Your task to perform on an android device: Turn off the flashlight Image 0: 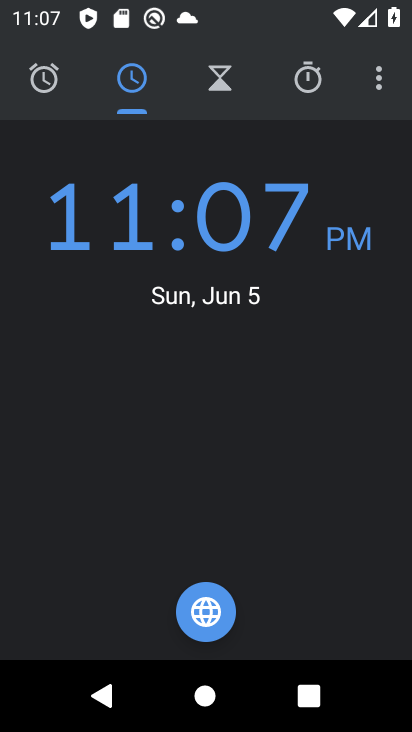
Step 0: press back button
Your task to perform on an android device: Turn off the flashlight Image 1: 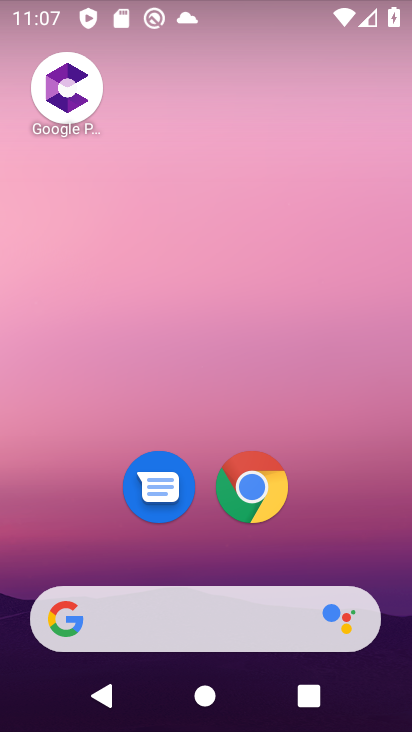
Step 1: drag from (345, 533) to (241, 106)
Your task to perform on an android device: Turn off the flashlight Image 2: 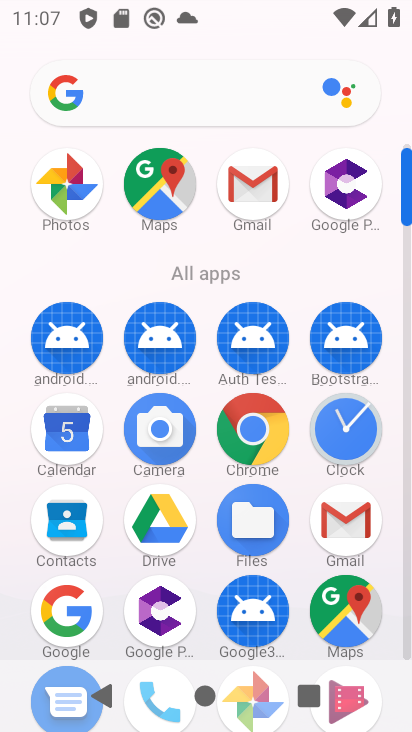
Step 2: drag from (312, 284) to (301, 42)
Your task to perform on an android device: Turn off the flashlight Image 3: 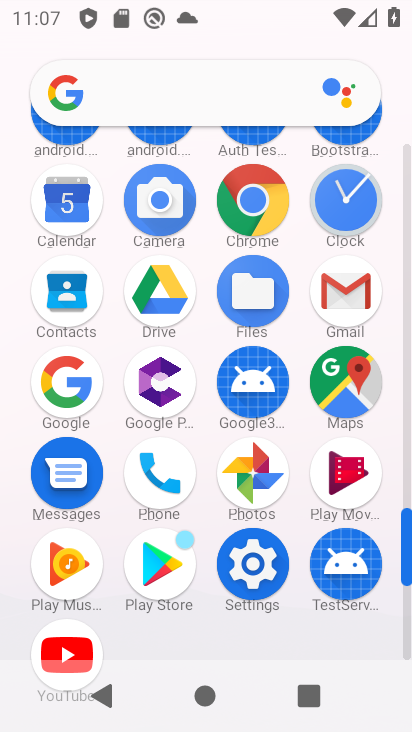
Step 3: click (255, 563)
Your task to perform on an android device: Turn off the flashlight Image 4: 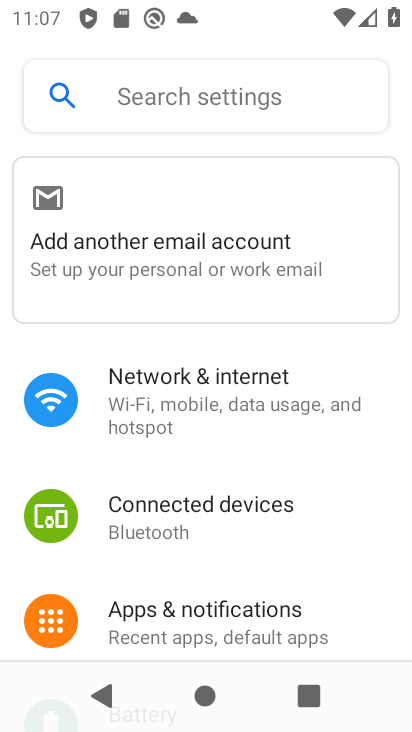
Step 4: drag from (203, 569) to (232, 386)
Your task to perform on an android device: Turn off the flashlight Image 5: 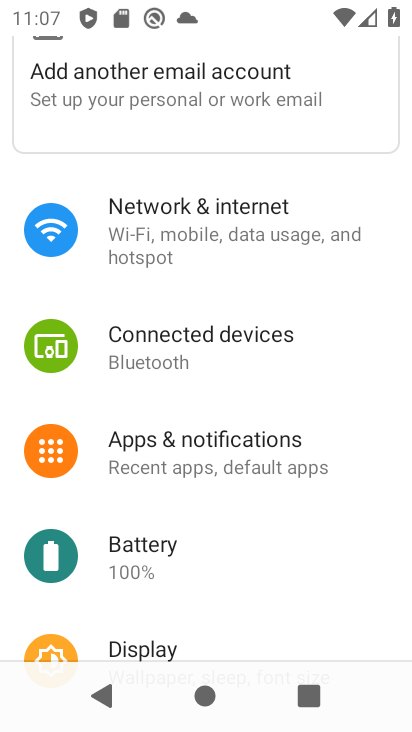
Step 5: drag from (161, 508) to (258, 355)
Your task to perform on an android device: Turn off the flashlight Image 6: 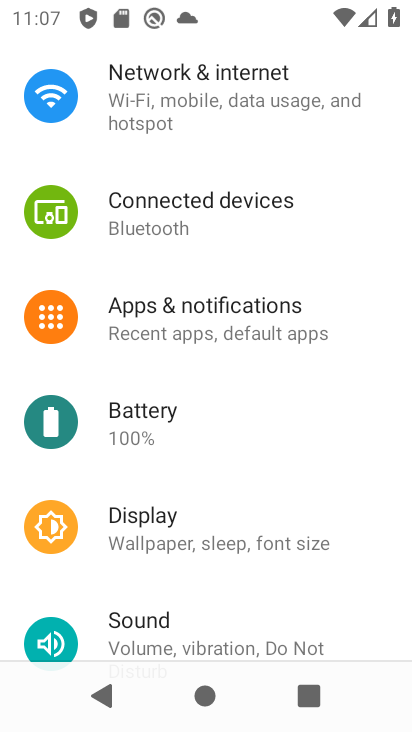
Step 6: drag from (141, 467) to (168, 337)
Your task to perform on an android device: Turn off the flashlight Image 7: 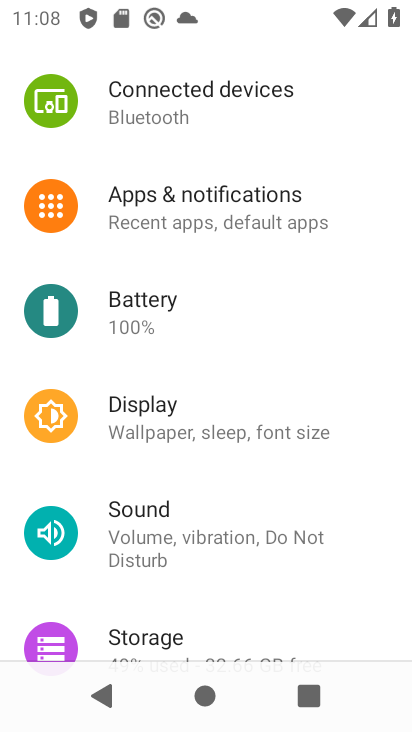
Step 7: drag from (177, 477) to (258, 351)
Your task to perform on an android device: Turn off the flashlight Image 8: 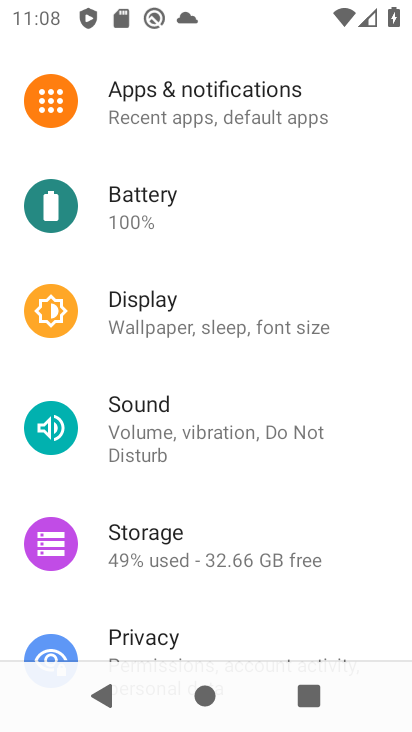
Step 8: drag from (228, 524) to (265, 393)
Your task to perform on an android device: Turn off the flashlight Image 9: 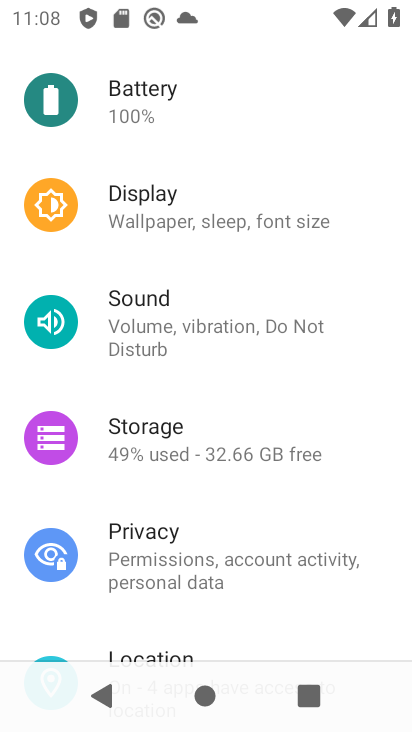
Step 9: drag from (236, 509) to (253, 411)
Your task to perform on an android device: Turn off the flashlight Image 10: 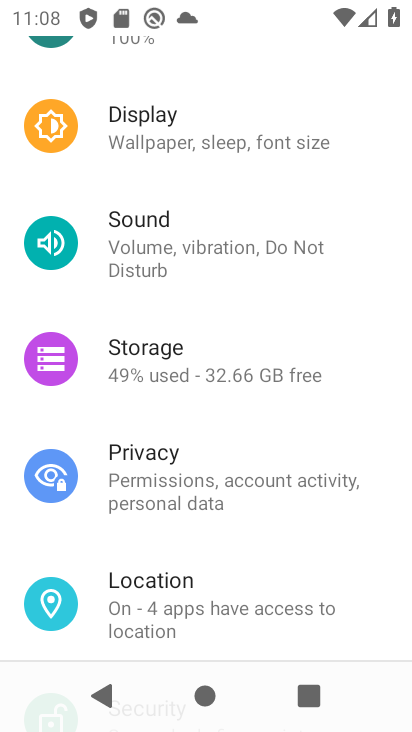
Step 10: drag from (227, 563) to (272, 441)
Your task to perform on an android device: Turn off the flashlight Image 11: 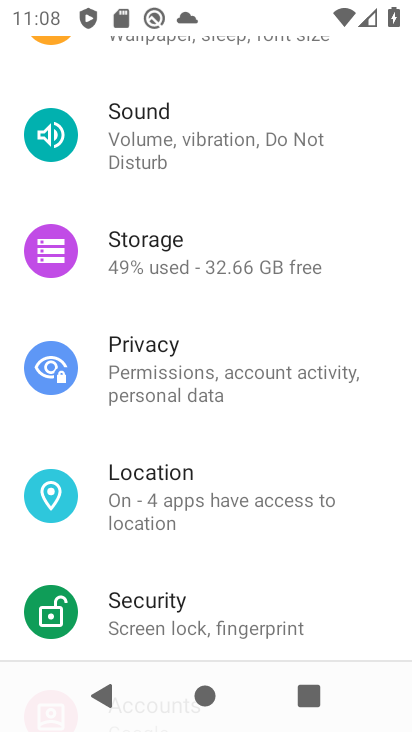
Step 11: drag from (215, 561) to (233, 460)
Your task to perform on an android device: Turn off the flashlight Image 12: 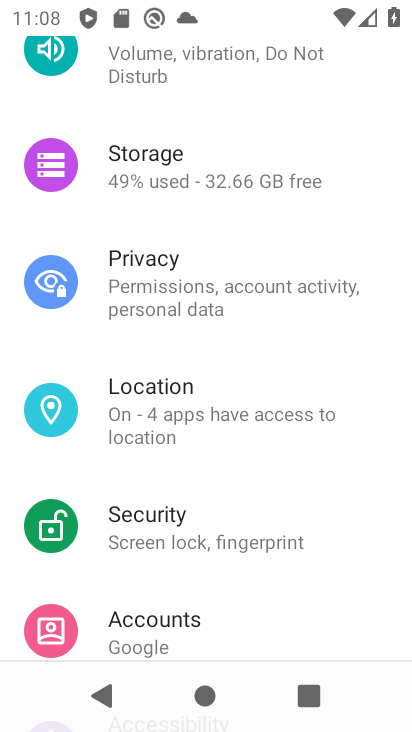
Step 12: drag from (199, 582) to (211, 473)
Your task to perform on an android device: Turn off the flashlight Image 13: 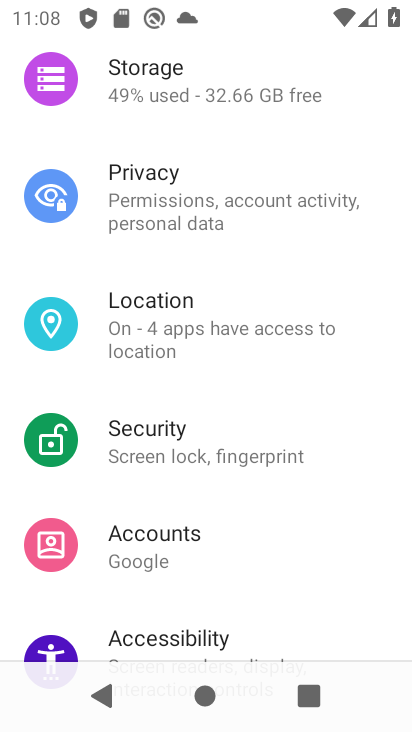
Step 13: drag from (223, 571) to (236, 486)
Your task to perform on an android device: Turn off the flashlight Image 14: 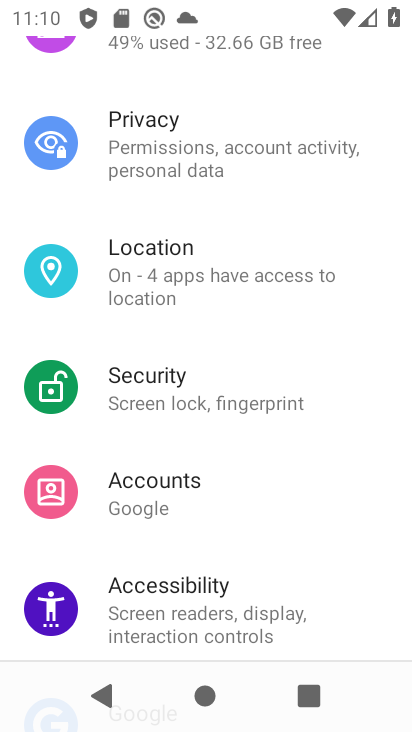
Step 14: drag from (265, 353) to (294, 518)
Your task to perform on an android device: Turn off the flashlight Image 15: 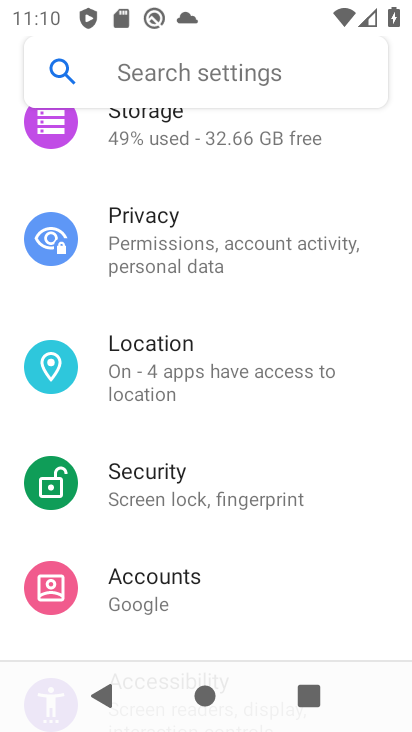
Step 15: drag from (247, 537) to (281, 406)
Your task to perform on an android device: Turn off the flashlight Image 16: 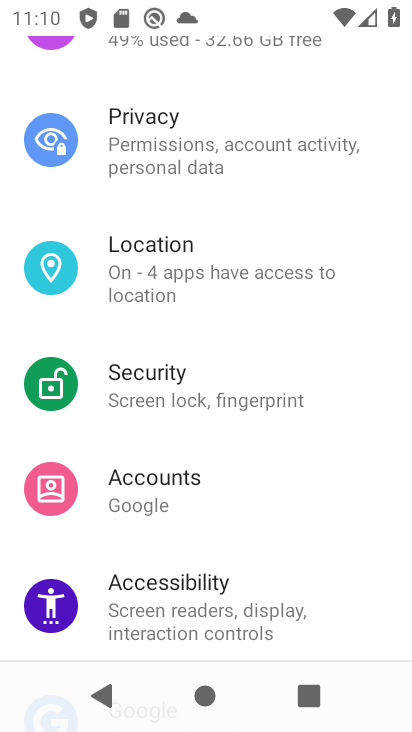
Step 16: drag from (251, 231) to (274, 498)
Your task to perform on an android device: Turn off the flashlight Image 17: 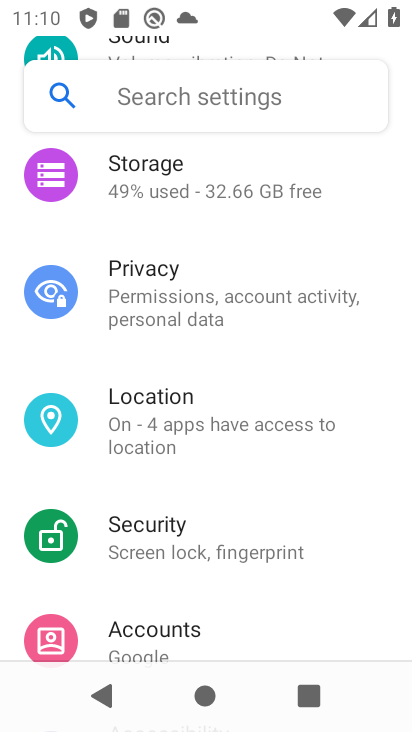
Step 17: drag from (249, 265) to (257, 463)
Your task to perform on an android device: Turn off the flashlight Image 18: 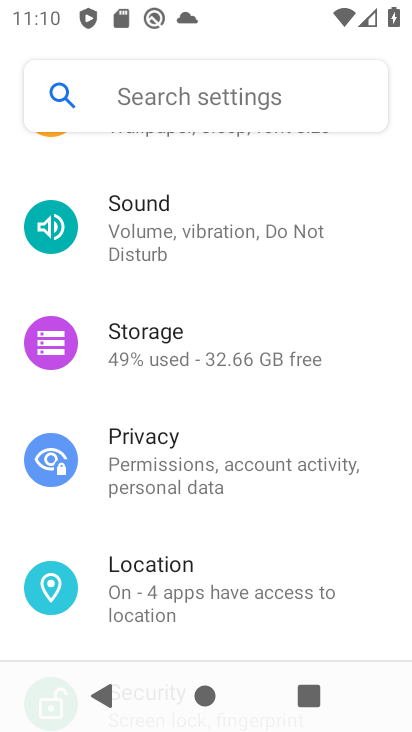
Step 18: drag from (263, 270) to (270, 505)
Your task to perform on an android device: Turn off the flashlight Image 19: 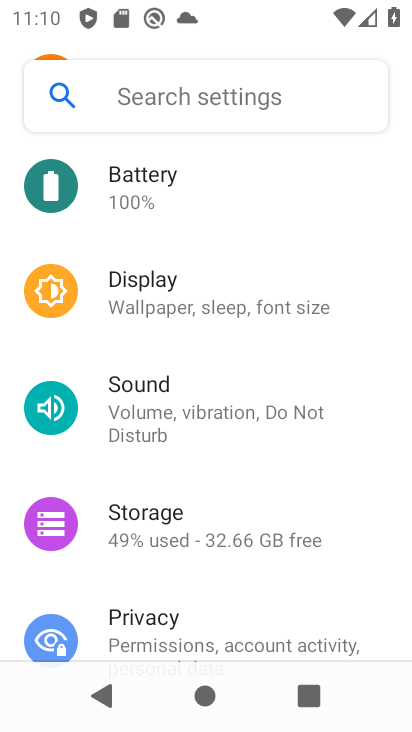
Step 19: click (214, 300)
Your task to perform on an android device: Turn off the flashlight Image 20: 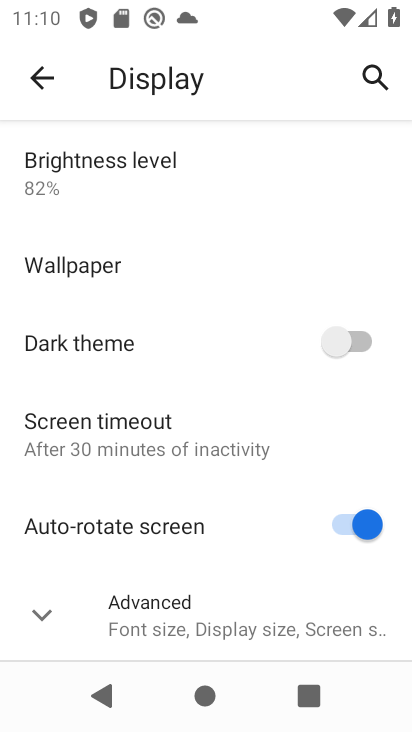
Step 20: task complete